Your task to perform on an android device: set the timer Image 0: 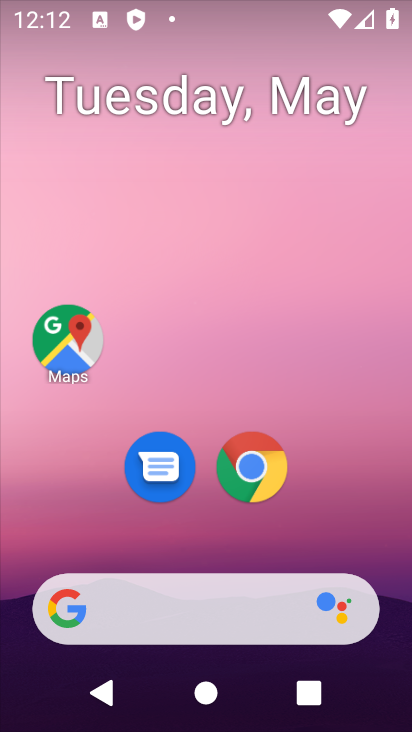
Step 0: drag from (311, 530) to (283, 52)
Your task to perform on an android device: set the timer Image 1: 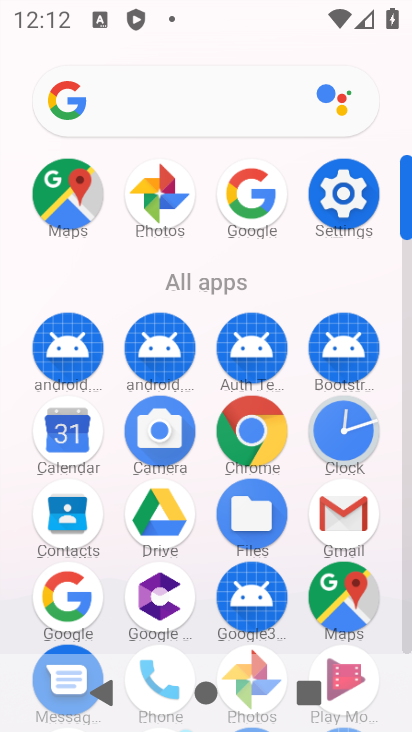
Step 1: click (339, 420)
Your task to perform on an android device: set the timer Image 2: 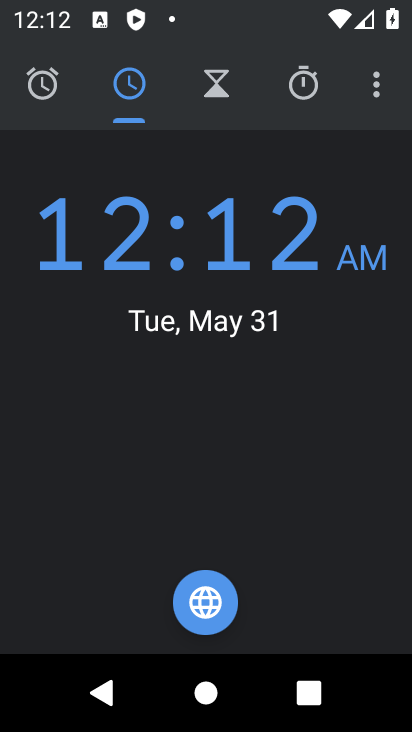
Step 2: click (226, 78)
Your task to perform on an android device: set the timer Image 3: 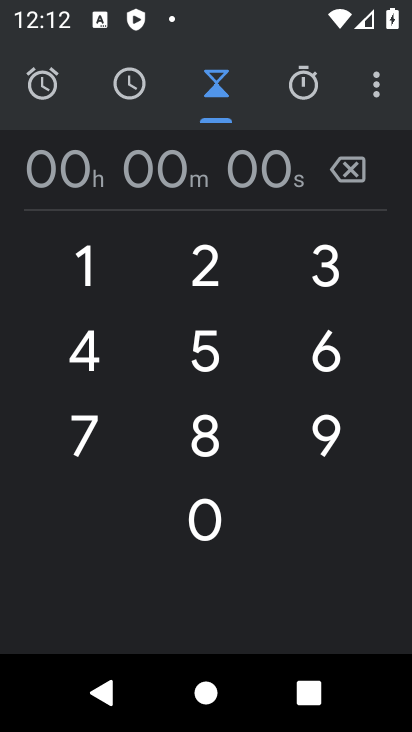
Step 3: click (102, 255)
Your task to perform on an android device: set the timer Image 4: 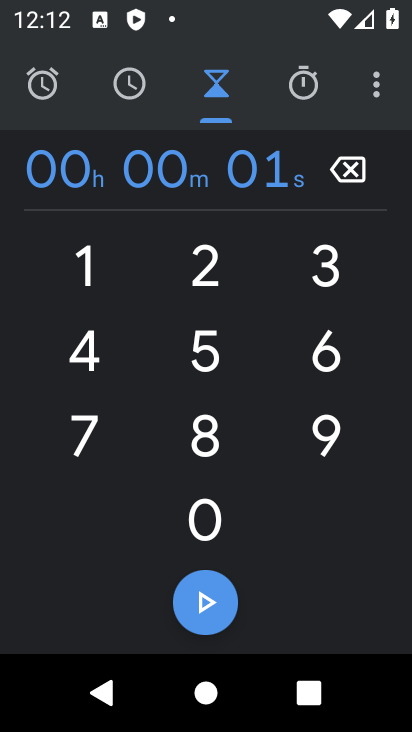
Step 4: click (209, 277)
Your task to perform on an android device: set the timer Image 5: 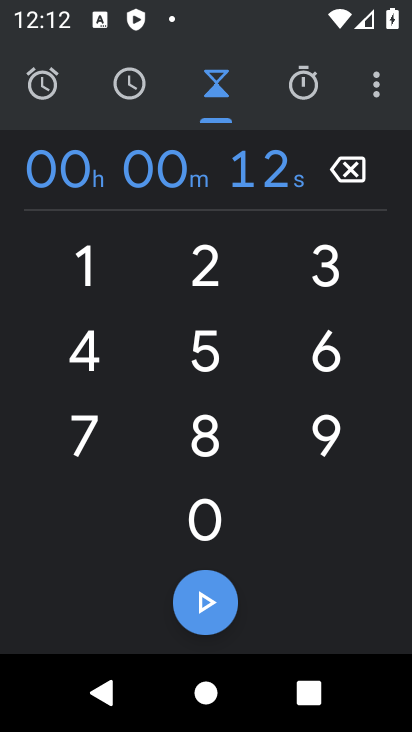
Step 5: click (319, 282)
Your task to perform on an android device: set the timer Image 6: 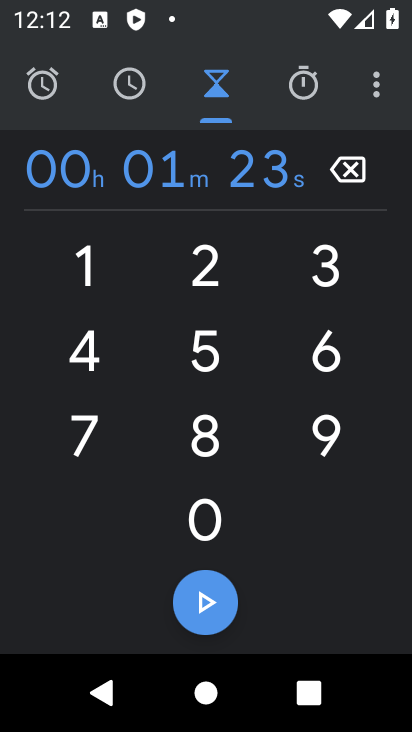
Step 6: click (87, 362)
Your task to perform on an android device: set the timer Image 7: 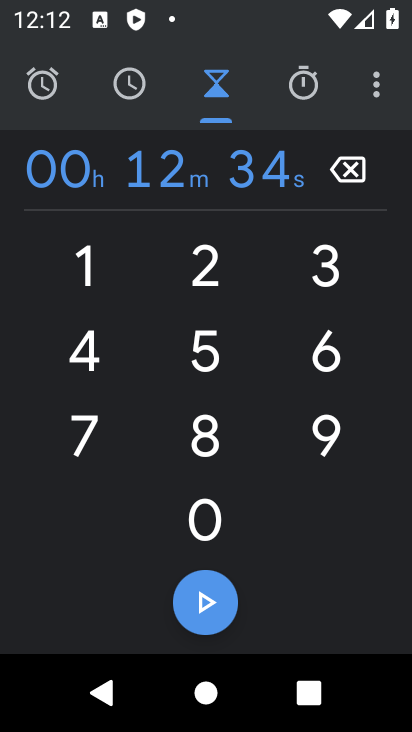
Step 7: click (203, 355)
Your task to perform on an android device: set the timer Image 8: 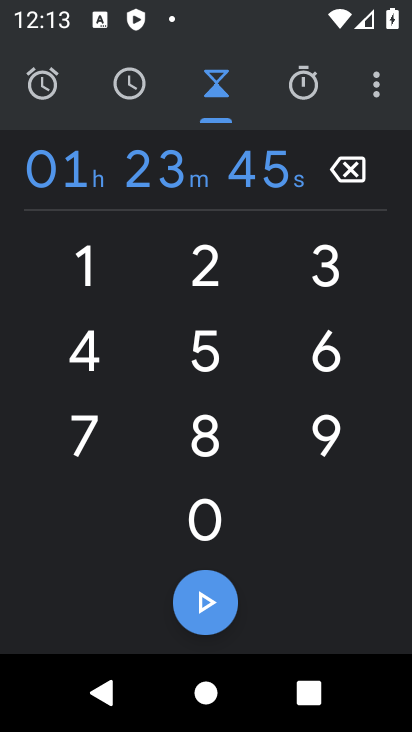
Step 8: click (201, 592)
Your task to perform on an android device: set the timer Image 9: 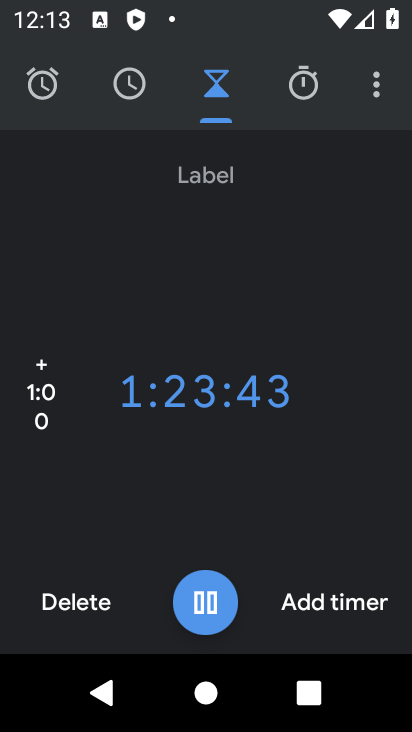
Step 9: task complete